Your task to perform on an android device: What's on the menu at IHOP? Image 0: 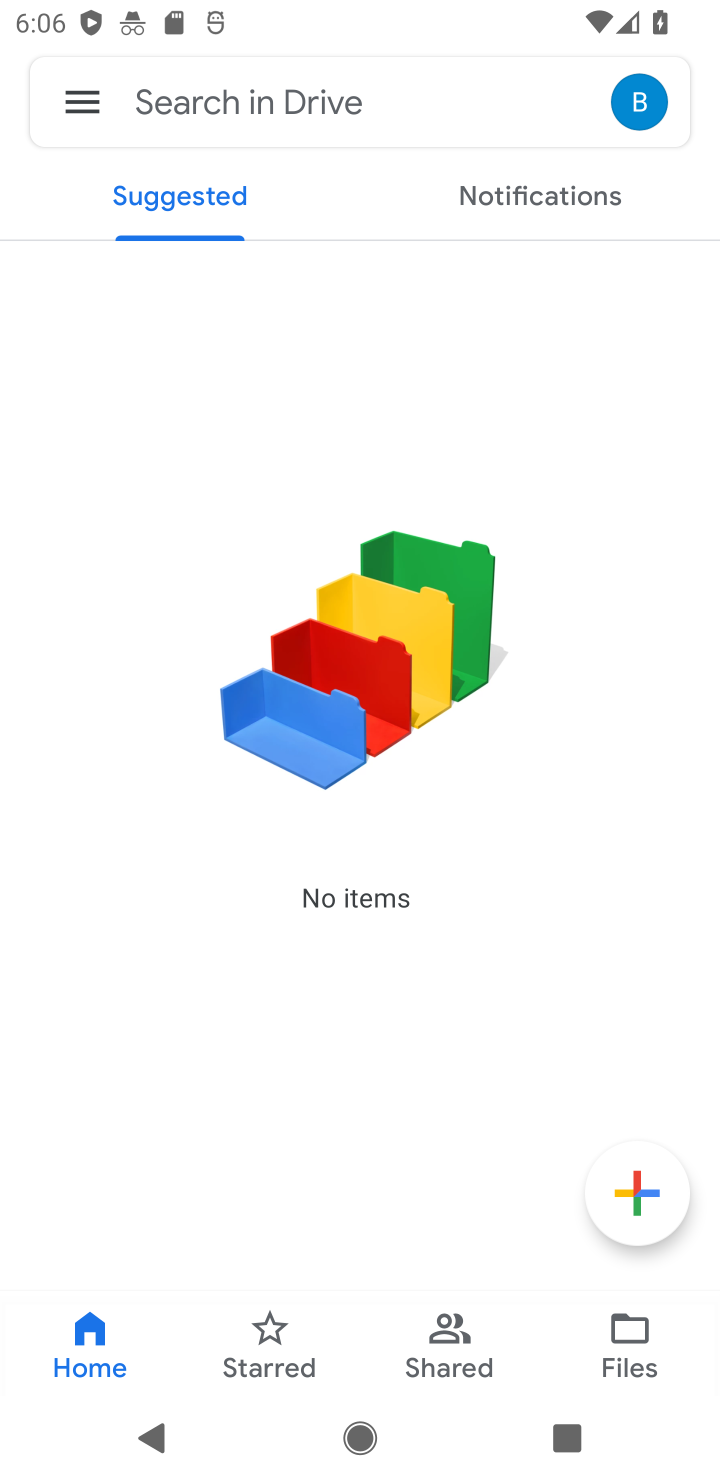
Step 0: press home button
Your task to perform on an android device: What's on the menu at IHOP? Image 1: 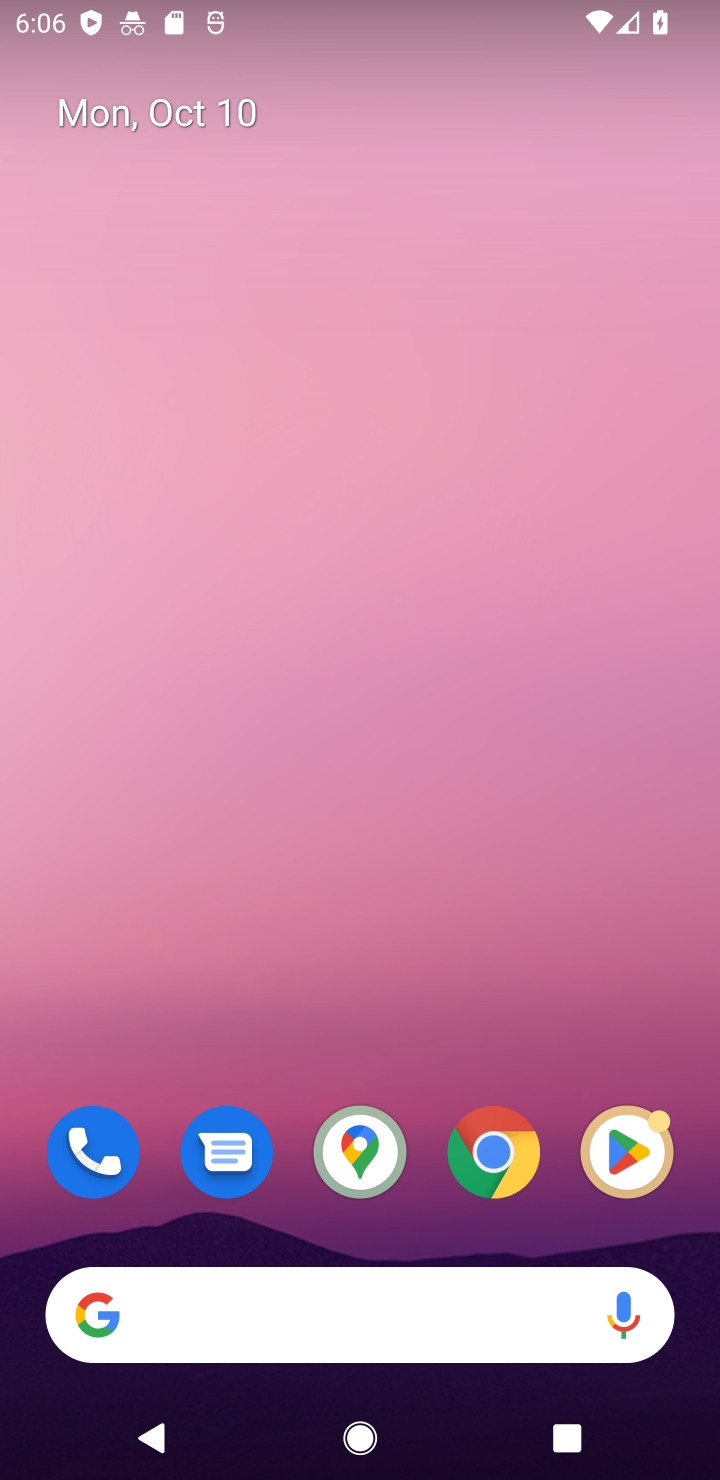
Step 1: click (492, 1152)
Your task to perform on an android device: What's on the menu at IHOP? Image 2: 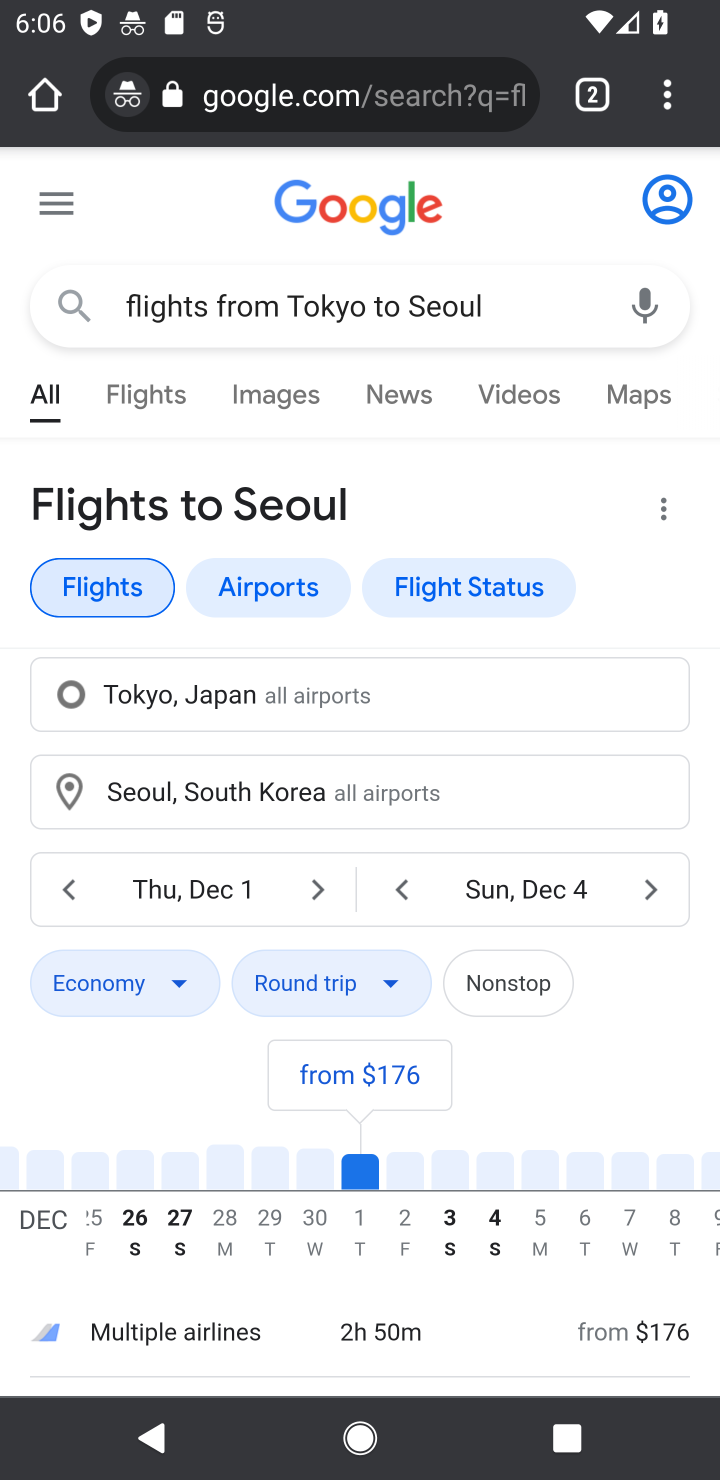
Step 2: click (399, 95)
Your task to perform on an android device: What's on the menu at IHOP? Image 3: 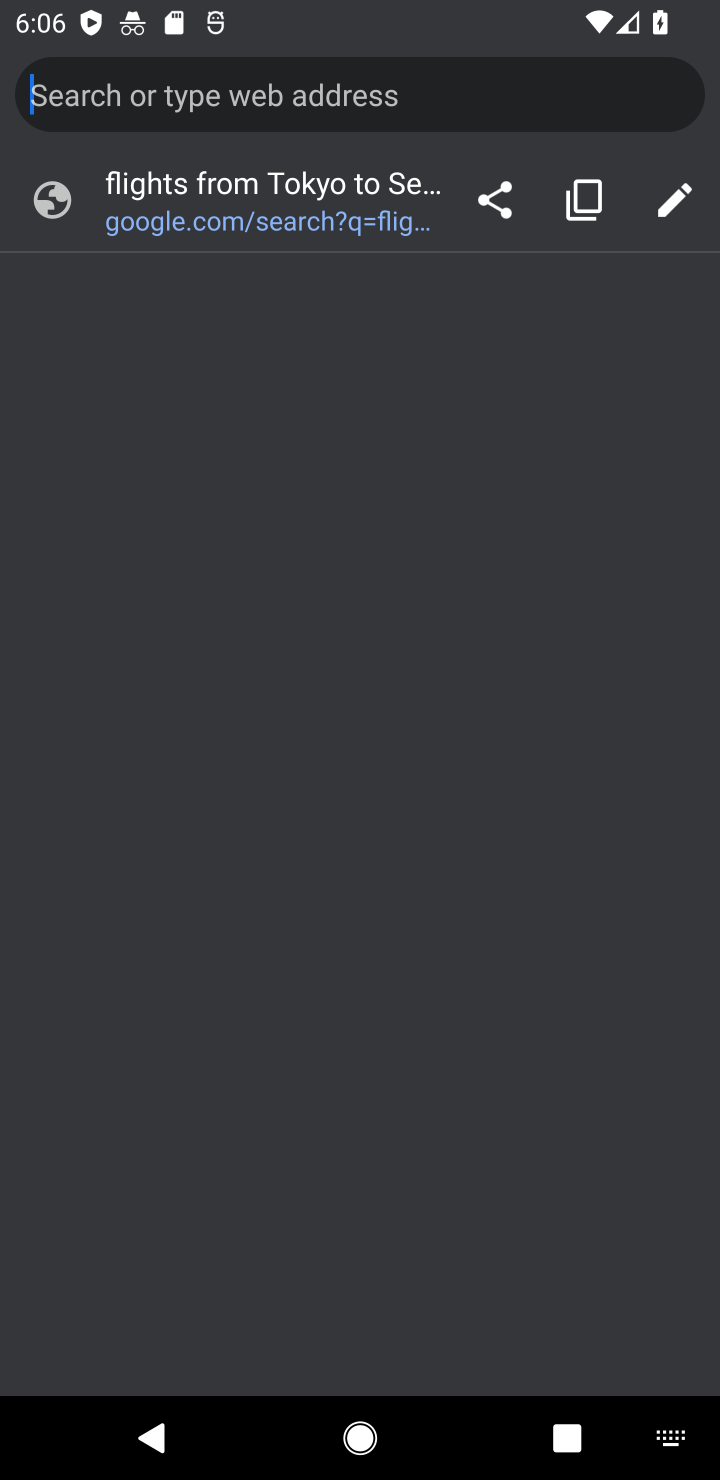
Step 3: type "menu at IHOP"
Your task to perform on an android device: What's on the menu at IHOP? Image 4: 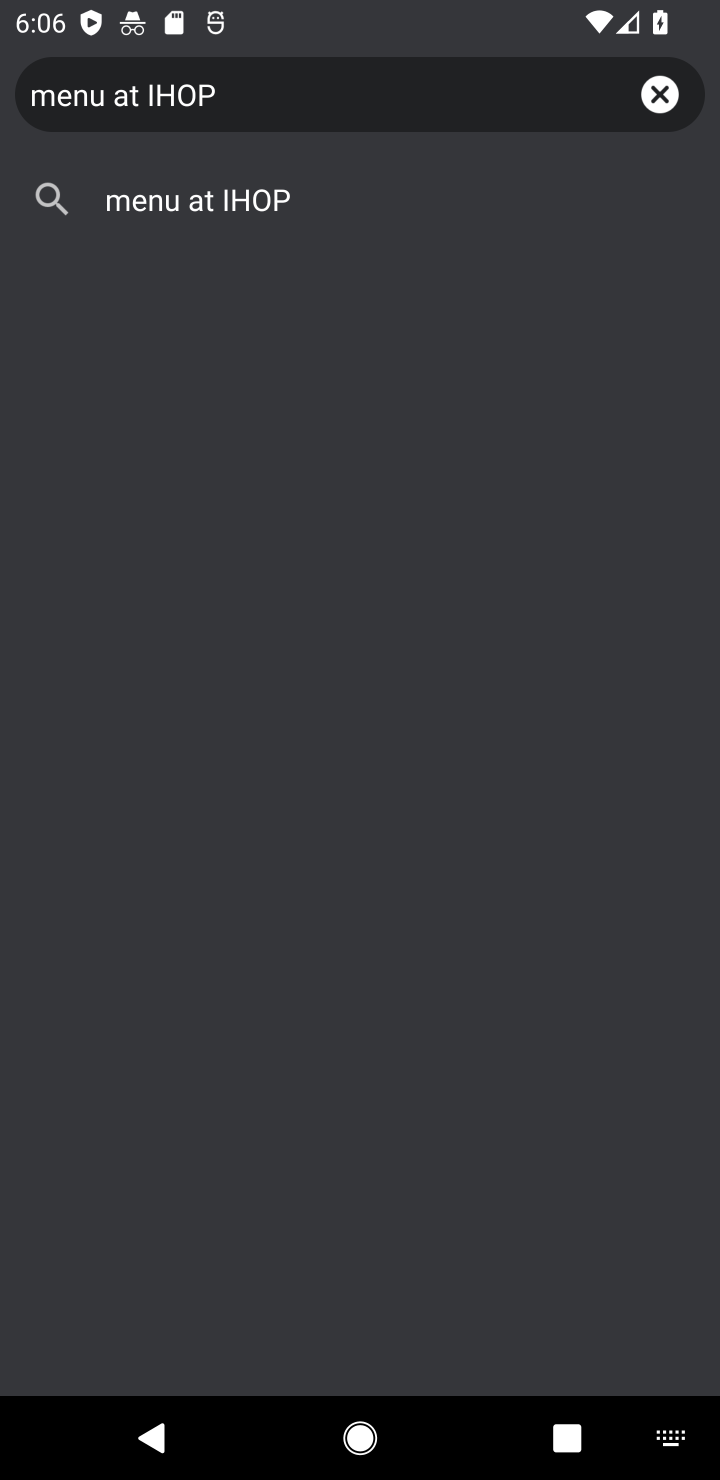
Step 4: click (249, 211)
Your task to perform on an android device: What's on the menu at IHOP? Image 5: 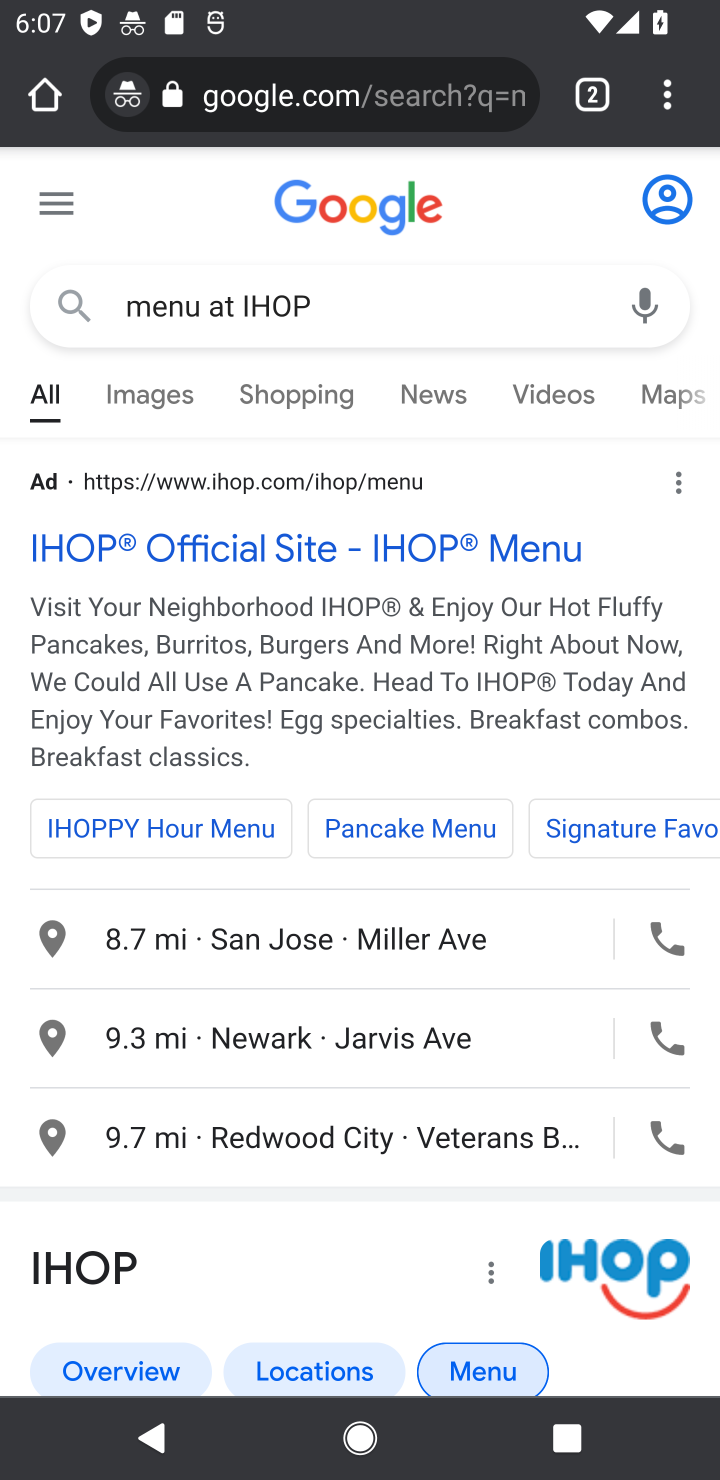
Step 5: task complete